Your task to perform on an android device: turn on location history Image 0: 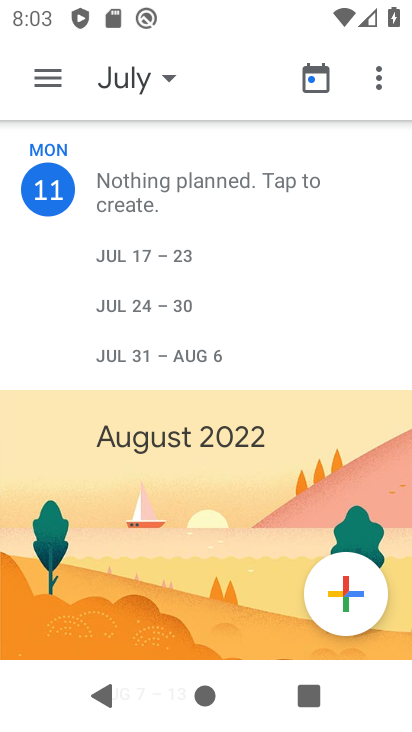
Step 0: press back button
Your task to perform on an android device: turn on location history Image 1: 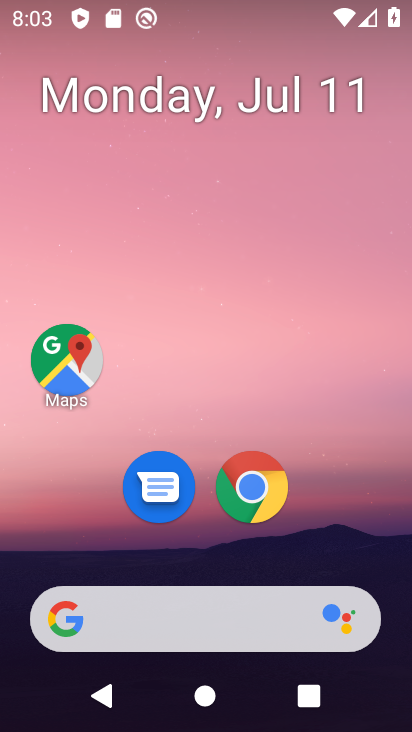
Step 1: drag from (183, 556) to (269, 10)
Your task to perform on an android device: turn on location history Image 2: 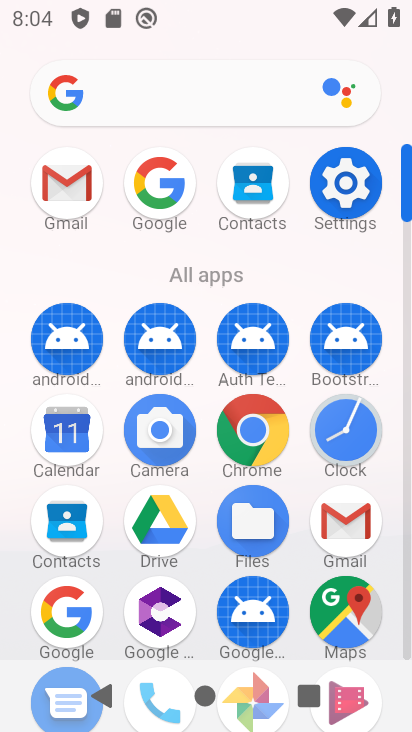
Step 2: click (362, 168)
Your task to perform on an android device: turn on location history Image 3: 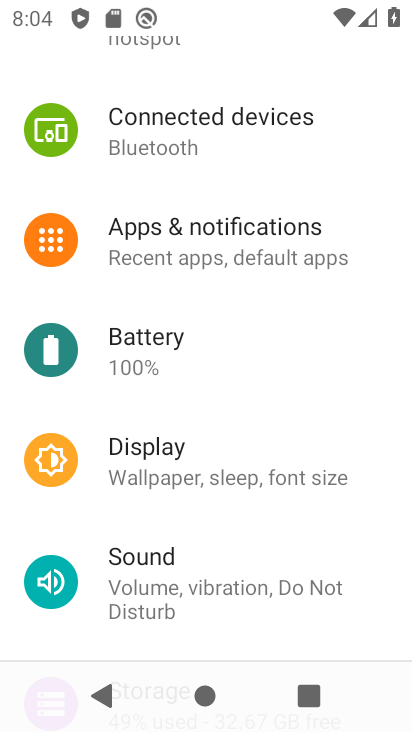
Step 3: drag from (217, 179) to (289, 81)
Your task to perform on an android device: turn on location history Image 4: 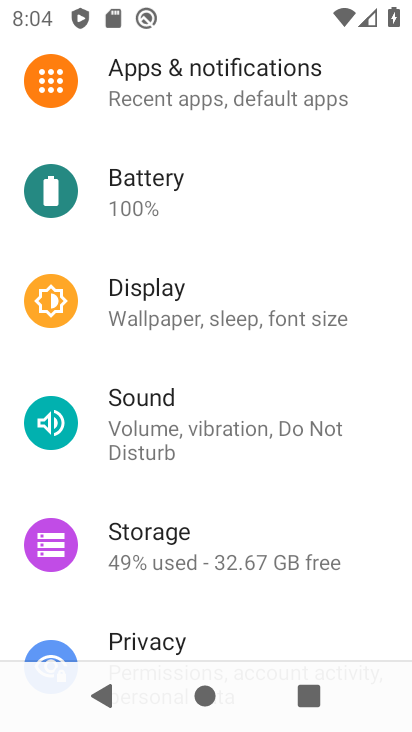
Step 4: drag from (181, 533) to (241, 69)
Your task to perform on an android device: turn on location history Image 5: 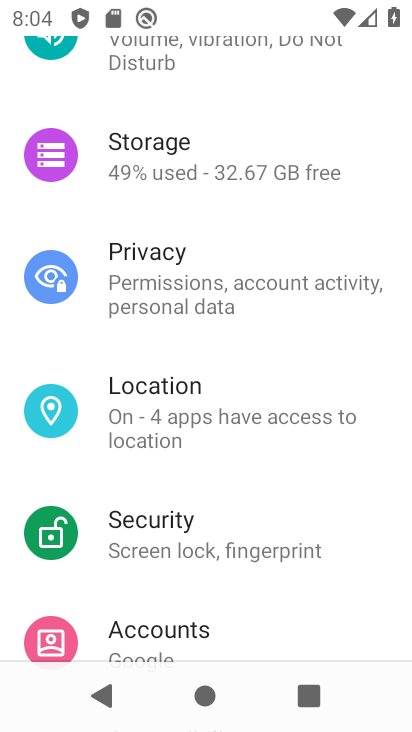
Step 5: click (184, 414)
Your task to perform on an android device: turn on location history Image 6: 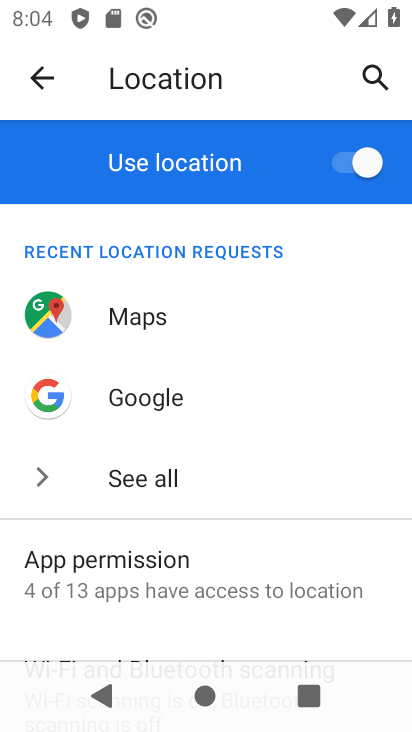
Step 6: drag from (149, 564) to (205, 231)
Your task to perform on an android device: turn on location history Image 7: 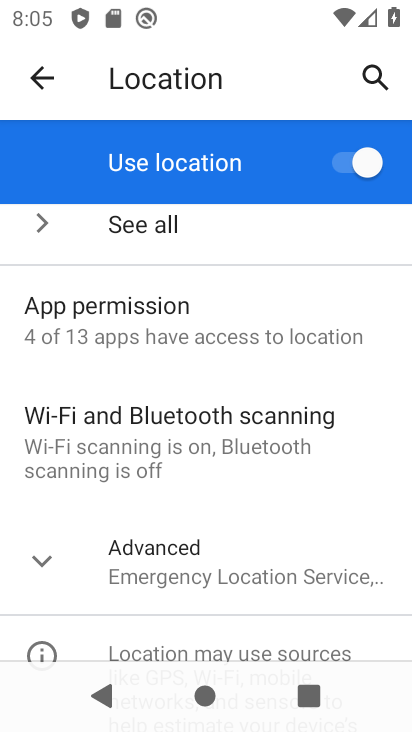
Step 7: click (226, 585)
Your task to perform on an android device: turn on location history Image 8: 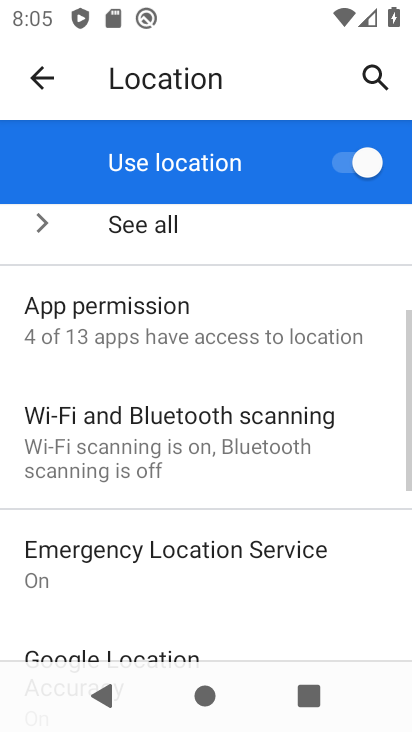
Step 8: drag from (190, 546) to (263, 161)
Your task to perform on an android device: turn on location history Image 9: 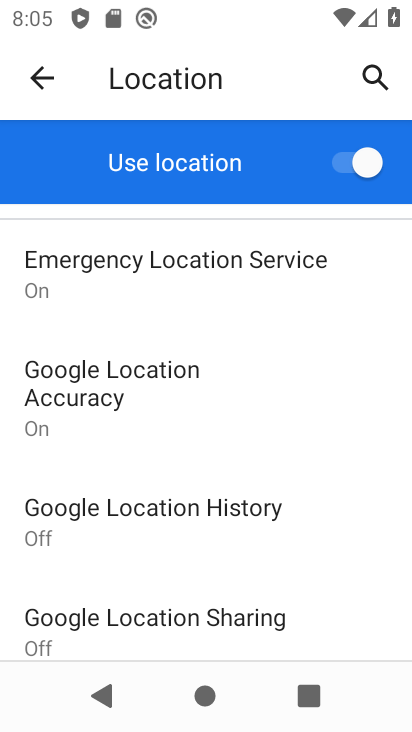
Step 9: click (93, 497)
Your task to perform on an android device: turn on location history Image 10: 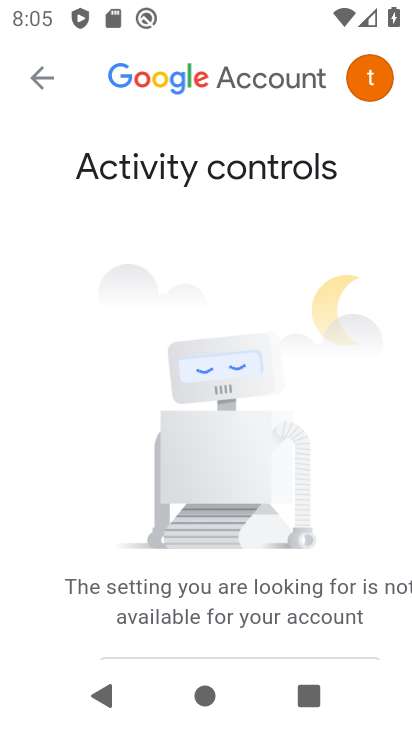
Step 10: task complete